Your task to perform on an android device: toggle translation in the chrome app Image 0: 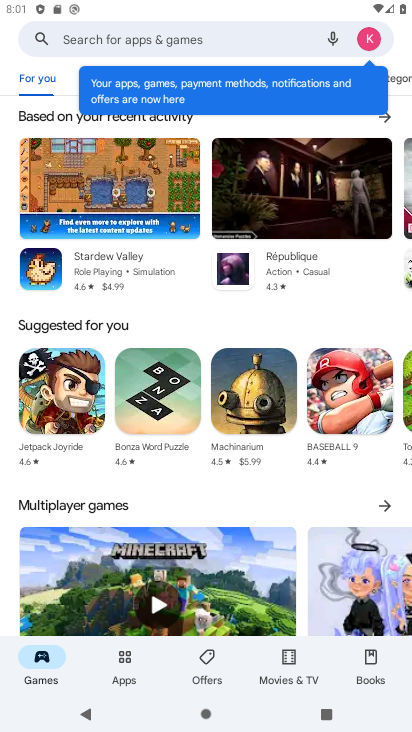
Step 0: press home button
Your task to perform on an android device: toggle translation in the chrome app Image 1: 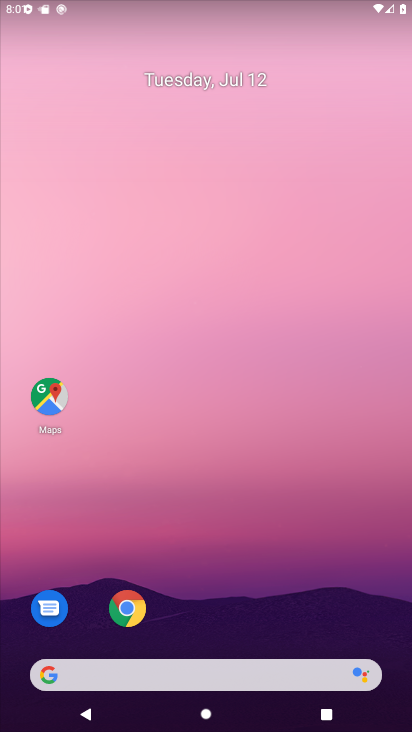
Step 1: click (129, 608)
Your task to perform on an android device: toggle translation in the chrome app Image 2: 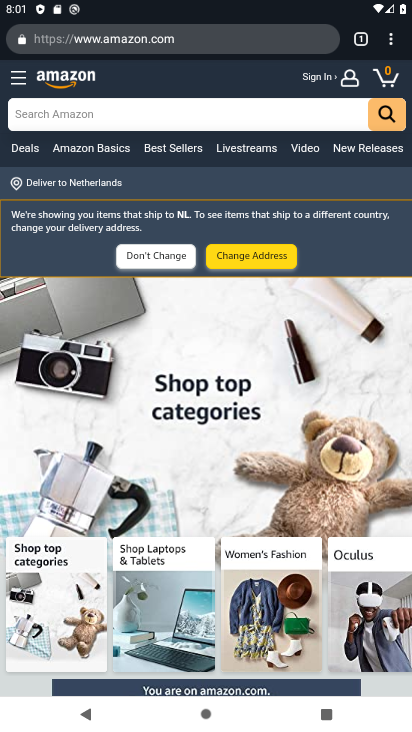
Step 2: click (401, 45)
Your task to perform on an android device: toggle translation in the chrome app Image 3: 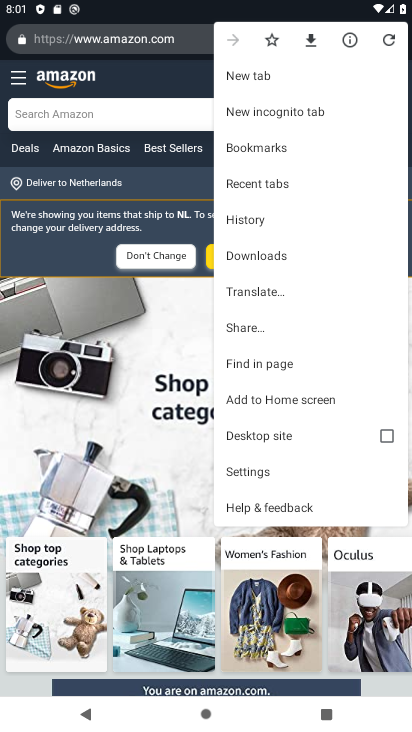
Step 3: click (264, 477)
Your task to perform on an android device: toggle translation in the chrome app Image 4: 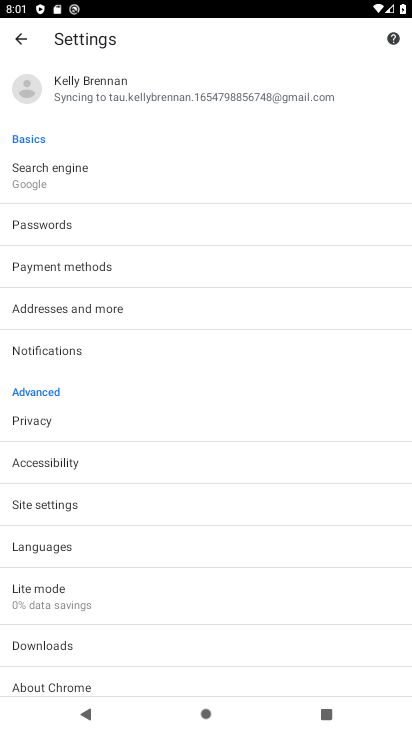
Step 4: click (85, 545)
Your task to perform on an android device: toggle translation in the chrome app Image 5: 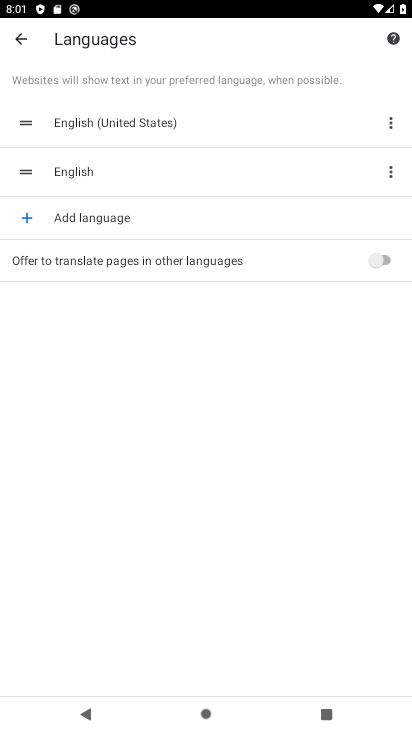
Step 5: click (388, 256)
Your task to perform on an android device: toggle translation in the chrome app Image 6: 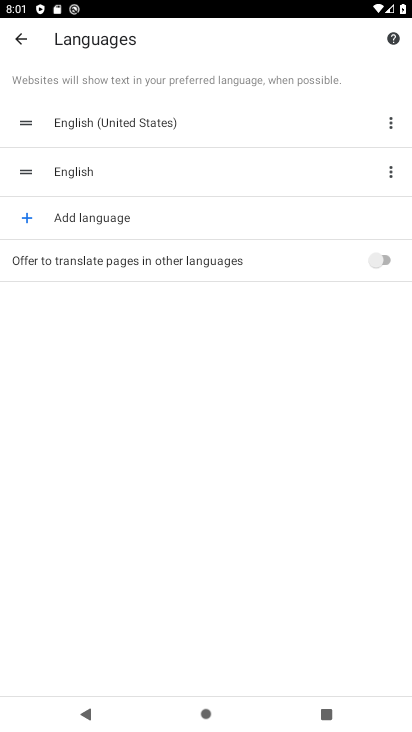
Step 6: click (388, 256)
Your task to perform on an android device: toggle translation in the chrome app Image 7: 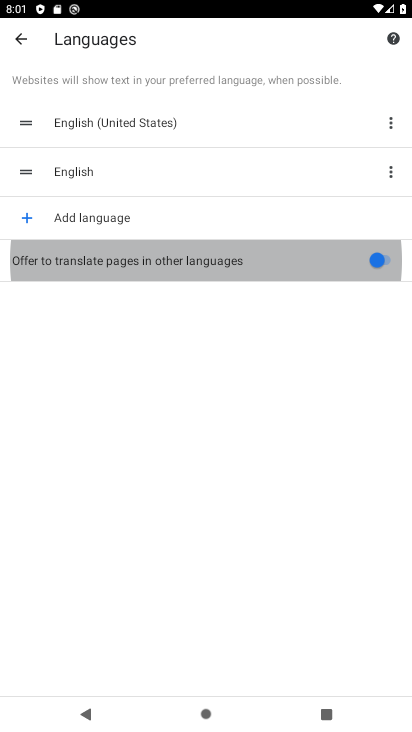
Step 7: click (388, 256)
Your task to perform on an android device: toggle translation in the chrome app Image 8: 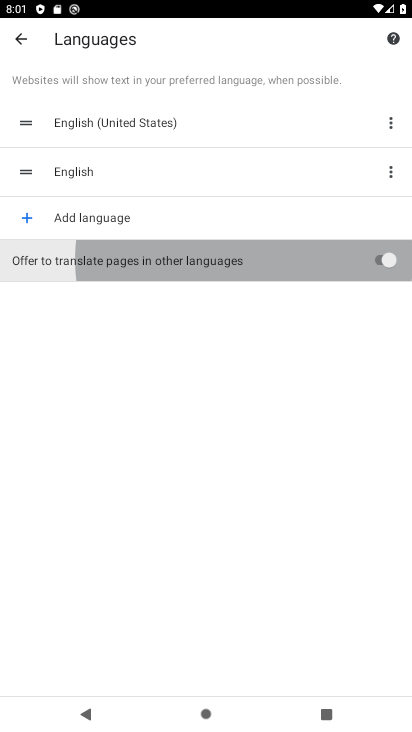
Step 8: click (388, 256)
Your task to perform on an android device: toggle translation in the chrome app Image 9: 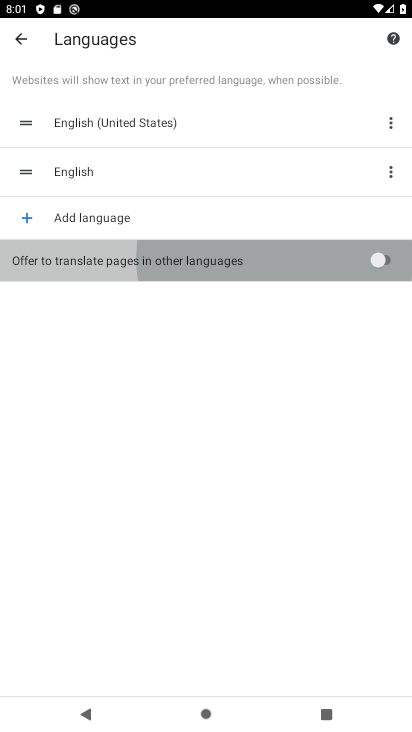
Step 9: click (388, 256)
Your task to perform on an android device: toggle translation in the chrome app Image 10: 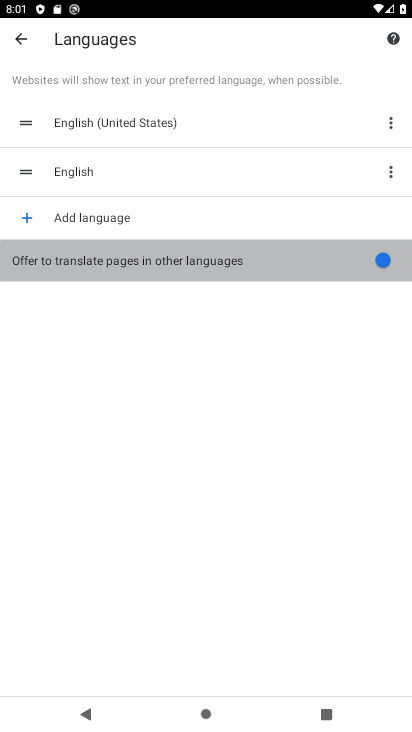
Step 10: click (388, 256)
Your task to perform on an android device: toggle translation in the chrome app Image 11: 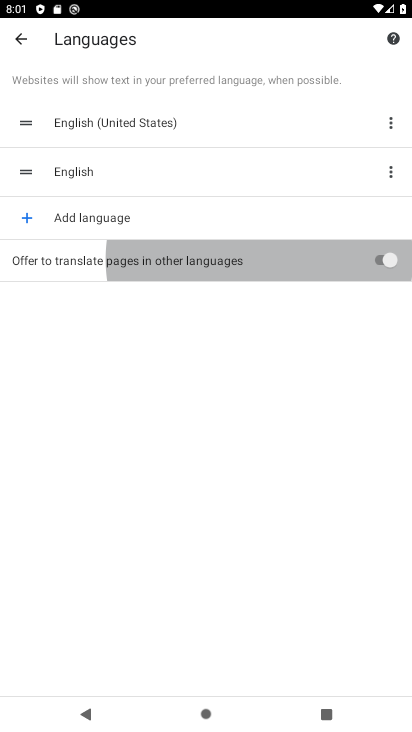
Step 11: click (388, 256)
Your task to perform on an android device: toggle translation in the chrome app Image 12: 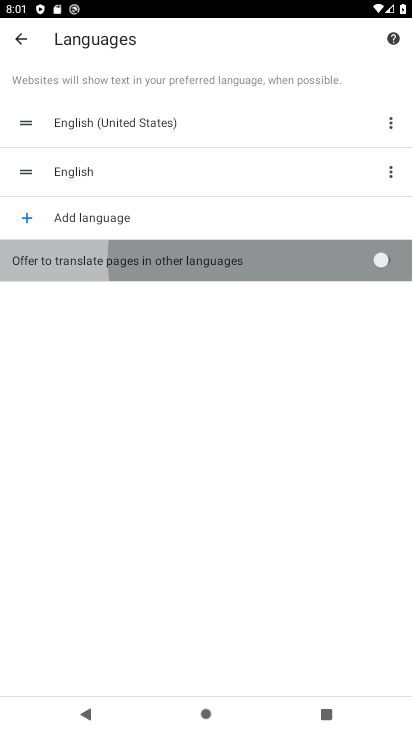
Step 12: click (388, 256)
Your task to perform on an android device: toggle translation in the chrome app Image 13: 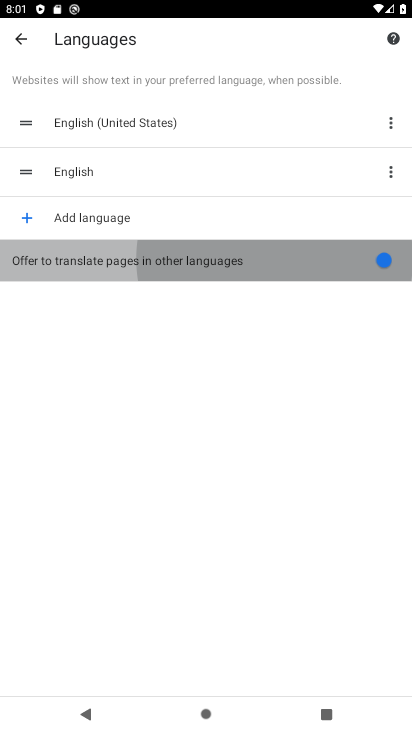
Step 13: click (388, 256)
Your task to perform on an android device: toggle translation in the chrome app Image 14: 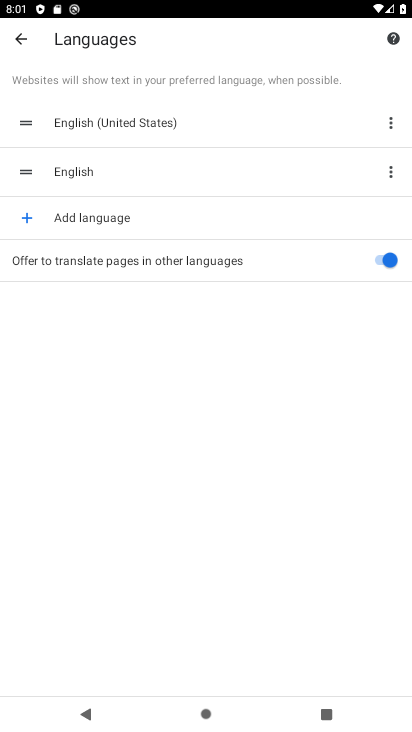
Step 14: task complete